Your task to perform on an android device: clear all cookies in the chrome app Image 0: 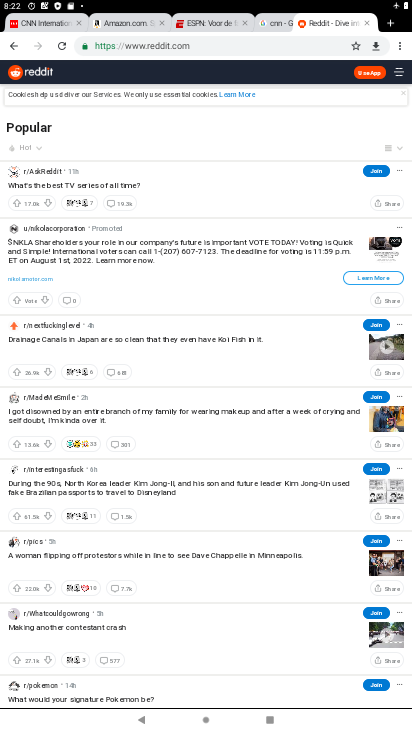
Step 0: click (403, 49)
Your task to perform on an android device: clear all cookies in the chrome app Image 1: 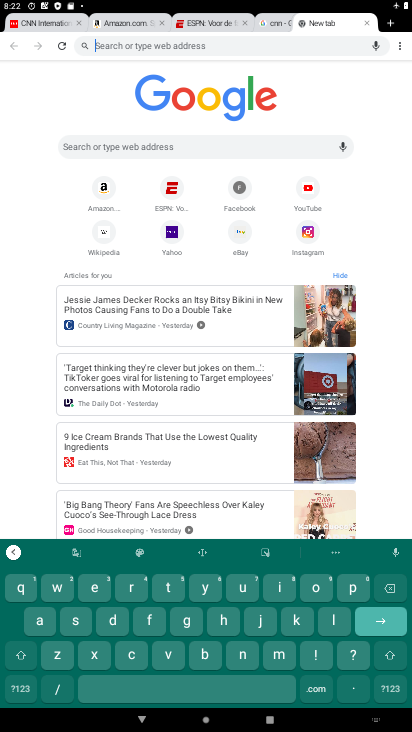
Step 1: click (402, 45)
Your task to perform on an android device: clear all cookies in the chrome app Image 2: 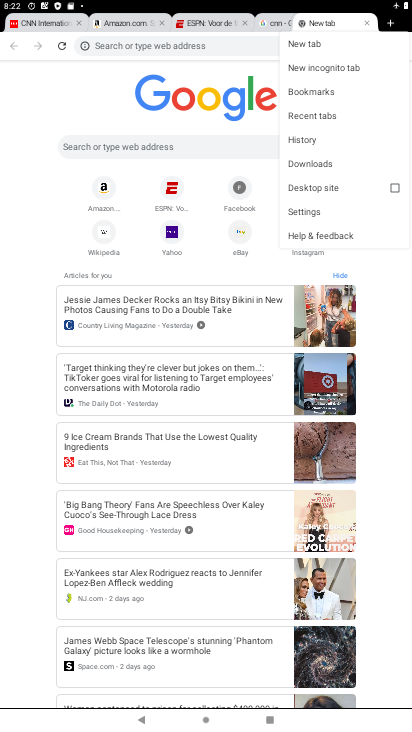
Step 2: click (299, 138)
Your task to perform on an android device: clear all cookies in the chrome app Image 3: 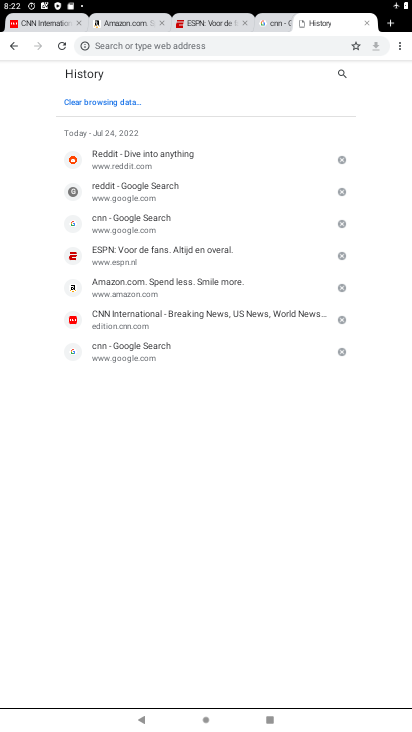
Step 3: click (85, 99)
Your task to perform on an android device: clear all cookies in the chrome app Image 4: 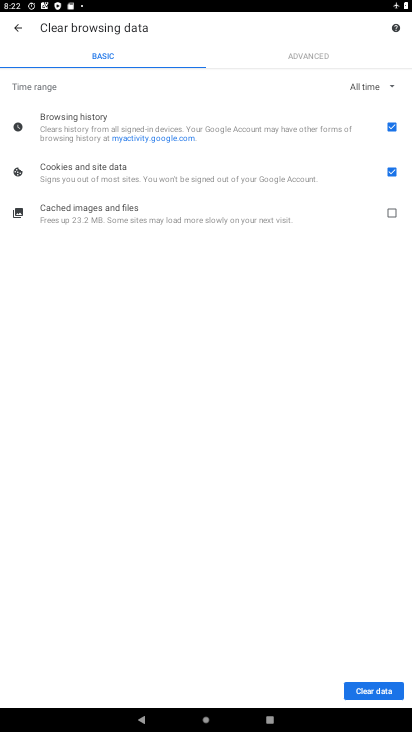
Step 4: click (393, 132)
Your task to perform on an android device: clear all cookies in the chrome app Image 5: 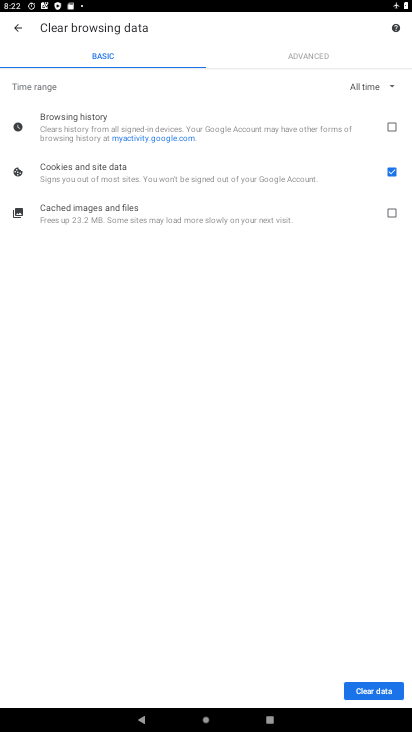
Step 5: click (388, 683)
Your task to perform on an android device: clear all cookies in the chrome app Image 6: 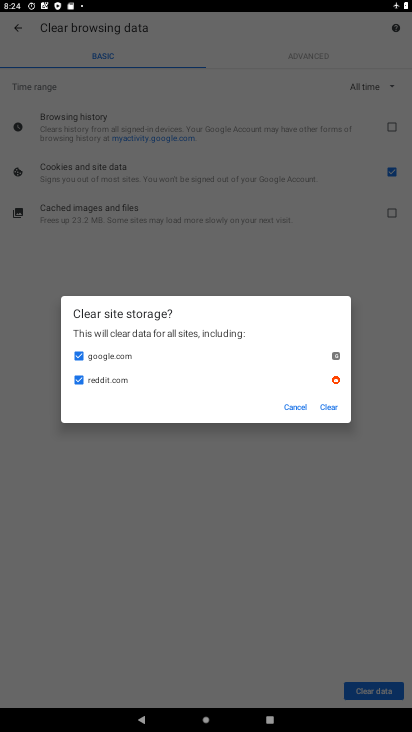
Step 6: task complete